Your task to perform on an android device: snooze an email in the gmail app Image 0: 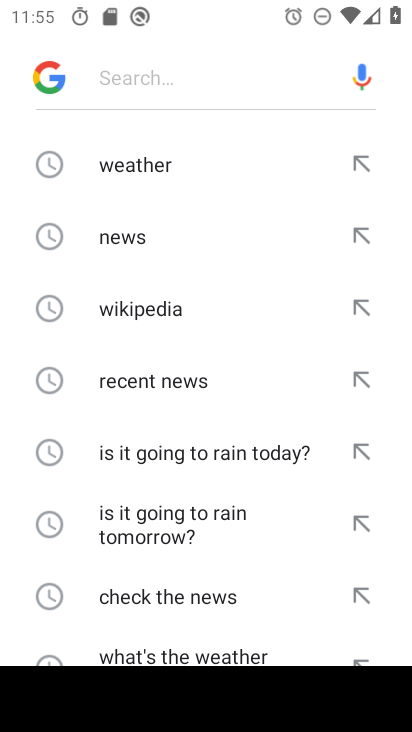
Step 0: press home button
Your task to perform on an android device: snooze an email in the gmail app Image 1: 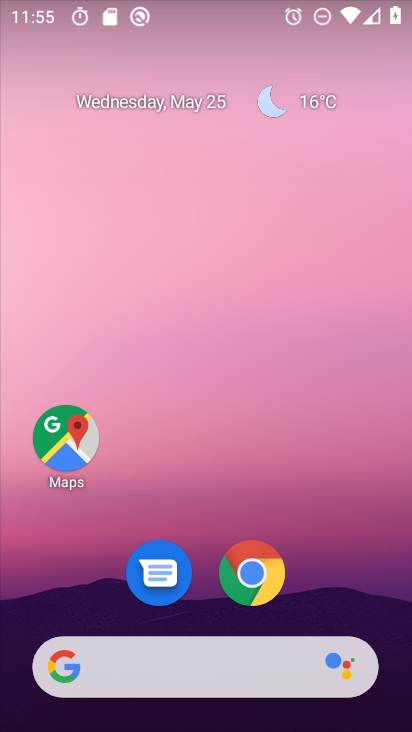
Step 1: drag from (365, 620) to (338, 5)
Your task to perform on an android device: snooze an email in the gmail app Image 2: 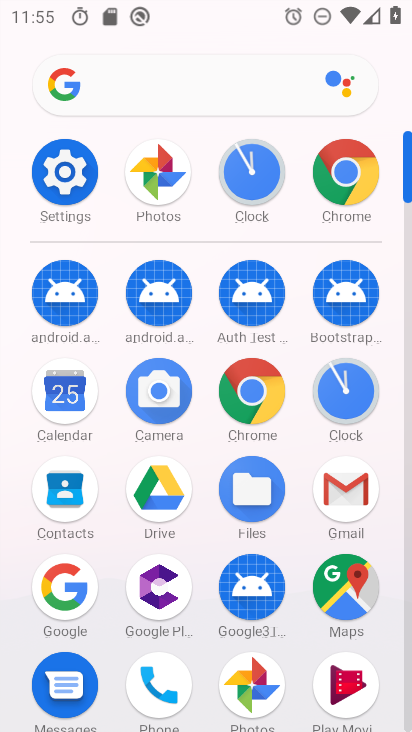
Step 2: click (338, 502)
Your task to perform on an android device: snooze an email in the gmail app Image 3: 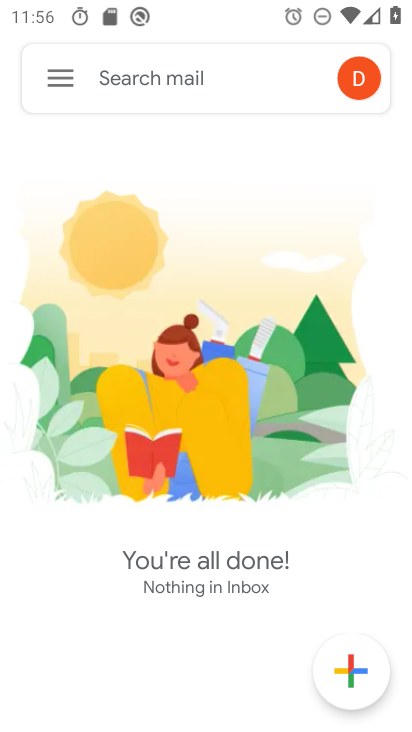
Step 3: click (66, 80)
Your task to perform on an android device: snooze an email in the gmail app Image 4: 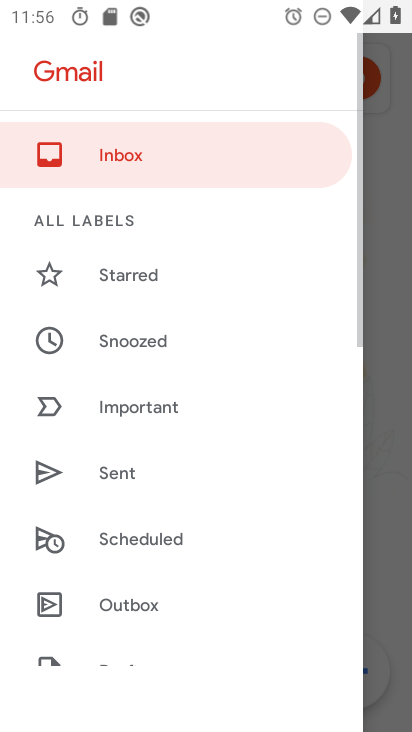
Step 4: drag from (229, 576) to (226, 149)
Your task to perform on an android device: snooze an email in the gmail app Image 5: 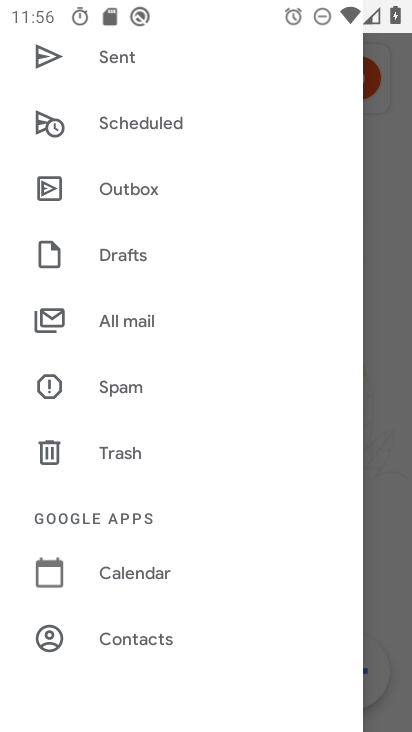
Step 5: click (123, 322)
Your task to perform on an android device: snooze an email in the gmail app Image 6: 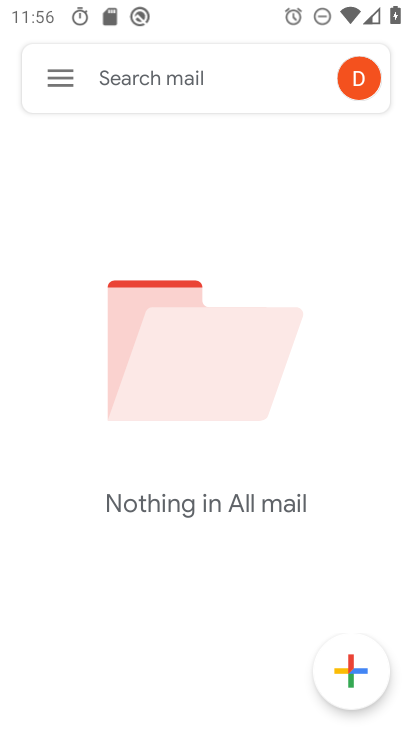
Step 6: task complete